Your task to perform on an android device: toggle location history Image 0: 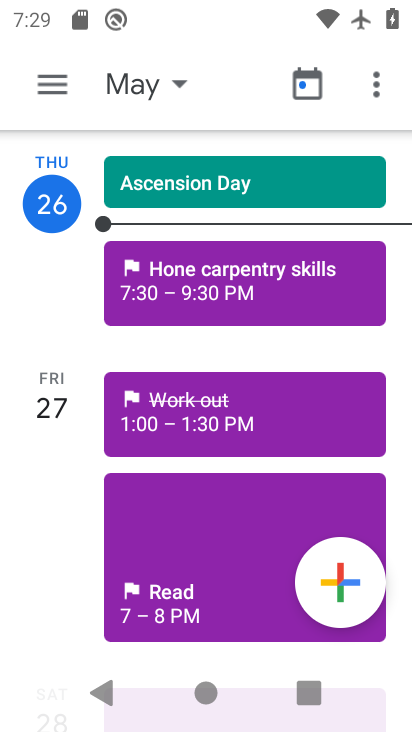
Step 0: press home button
Your task to perform on an android device: toggle location history Image 1: 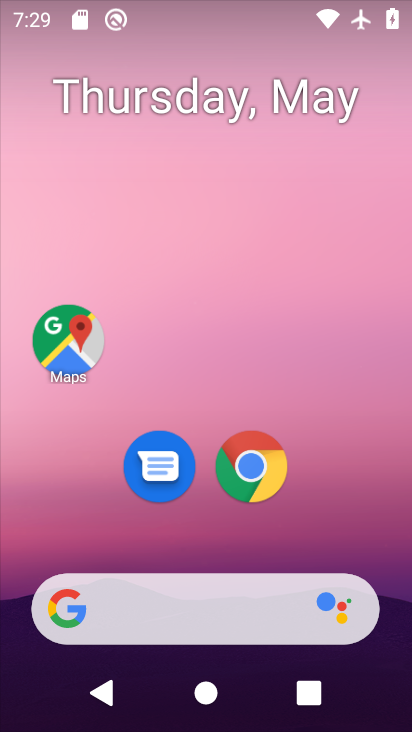
Step 1: drag from (364, 523) to (193, 35)
Your task to perform on an android device: toggle location history Image 2: 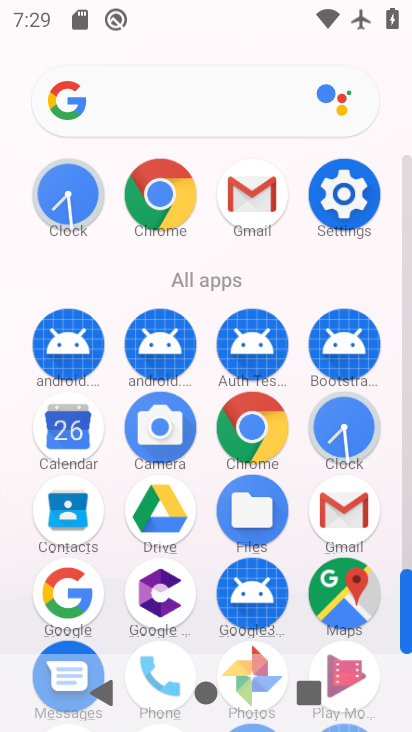
Step 2: click (346, 206)
Your task to perform on an android device: toggle location history Image 3: 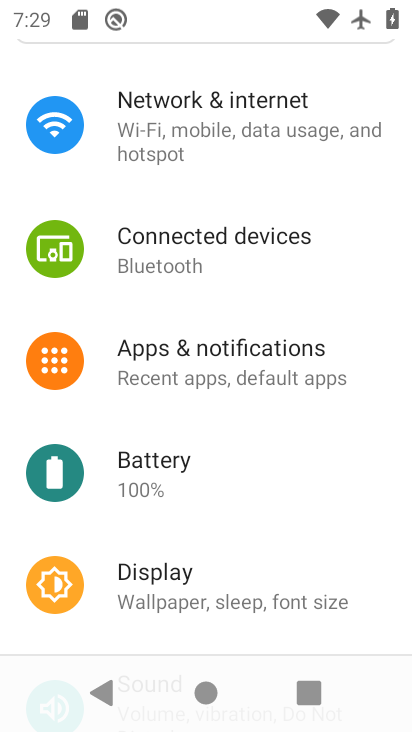
Step 3: click (252, 360)
Your task to perform on an android device: toggle location history Image 4: 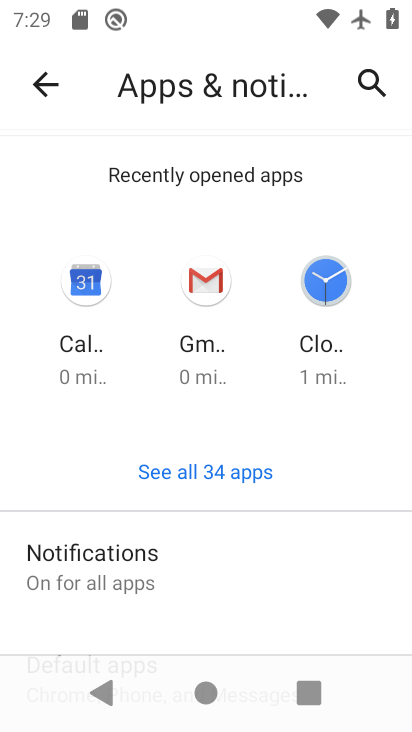
Step 4: click (26, 77)
Your task to perform on an android device: toggle location history Image 5: 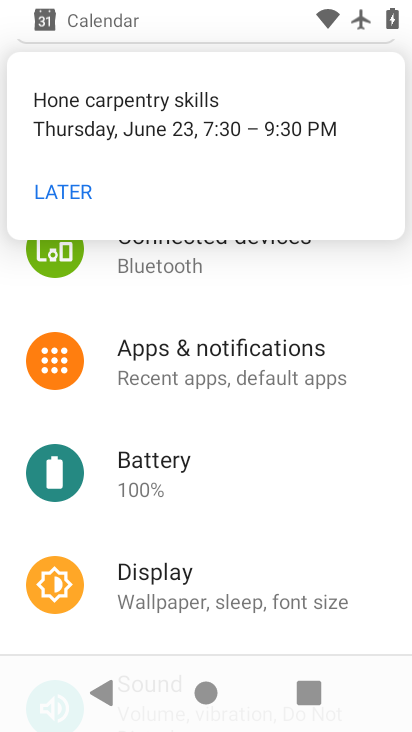
Step 5: drag from (199, 569) to (183, 347)
Your task to perform on an android device: toggle location history Image 6: 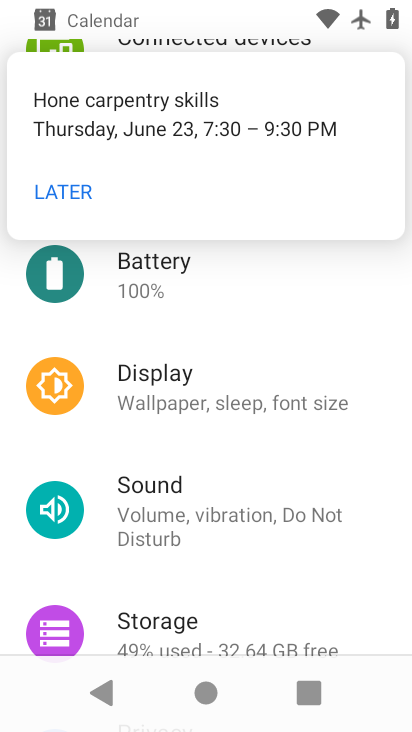
Step 6: click (83, 199)
Your task to perform on an android device: toggle location history Image 7: 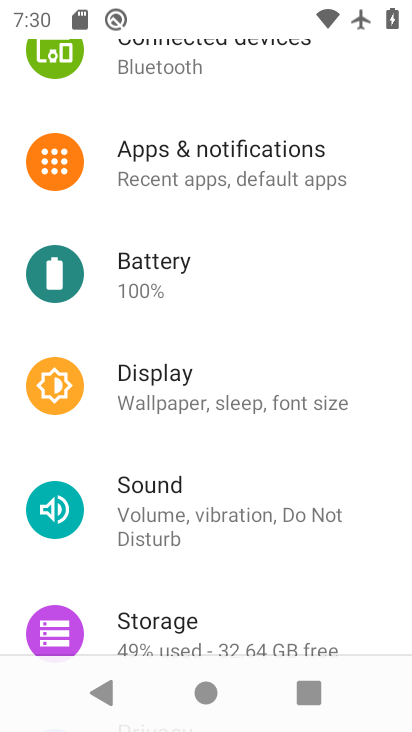
Step 7: drag from (272, 640) to (269, 172)
Your task to perform on an android device: toggle location history Image 8: 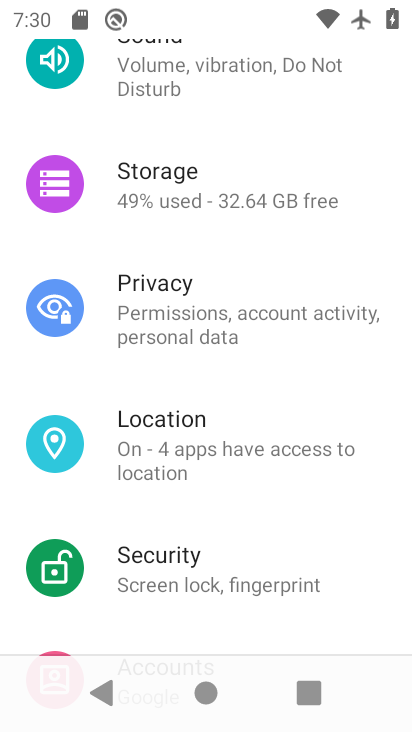
Step 8: click (269, 414)
Your task to perform on an android device: toggle location history Image 9: 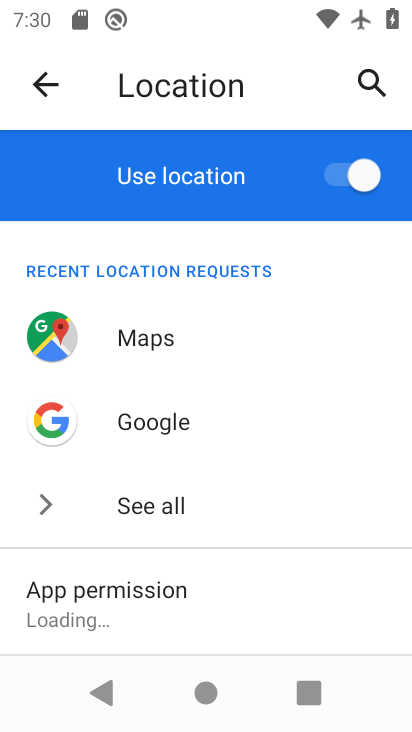
Step 9: drag from (257, 559) to (257, 170)
Your task to perform on an android device: toggle location history Image 10: 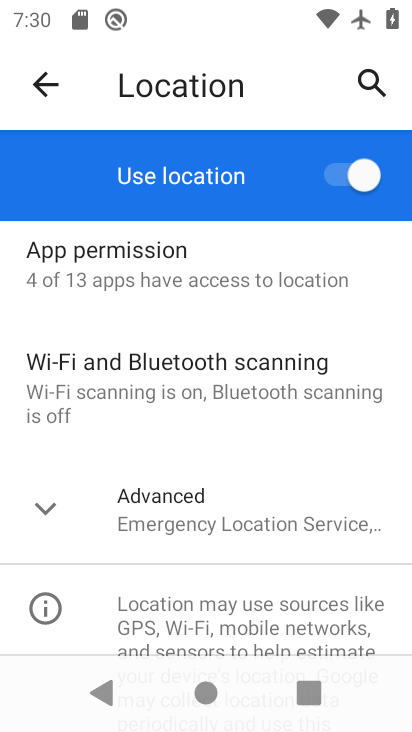
Step 10: click (184, 518)
Your task to perform on an android device: toggle location history Image 11: 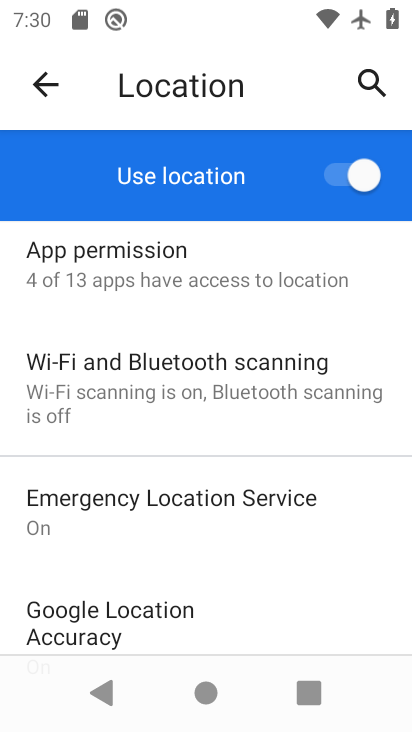
Step 11: drag from (273, 581) to (248, 324)
Your task to perform on an android device: toggle location history Image 12: 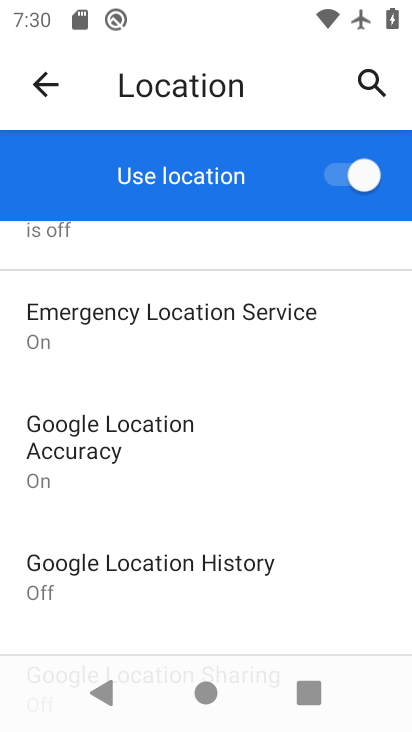
Step 12: click (236, 472)
Your task to perform on an android device: toggle location history Image 13: 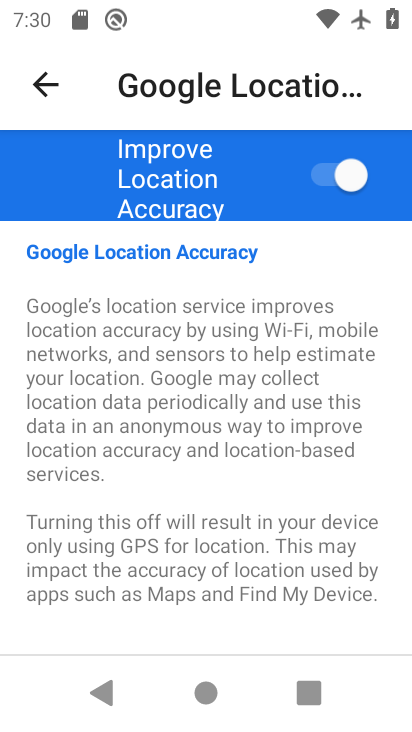
Step 13: click (345, 206)
Your task to perform on an android device: toggle location history Image 14: 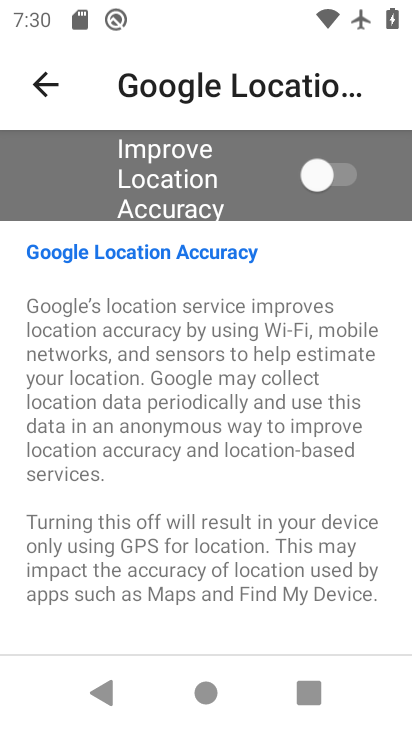
Step 14: task complete